Your task to perform on an android device: Open ESPN.com Image 0: 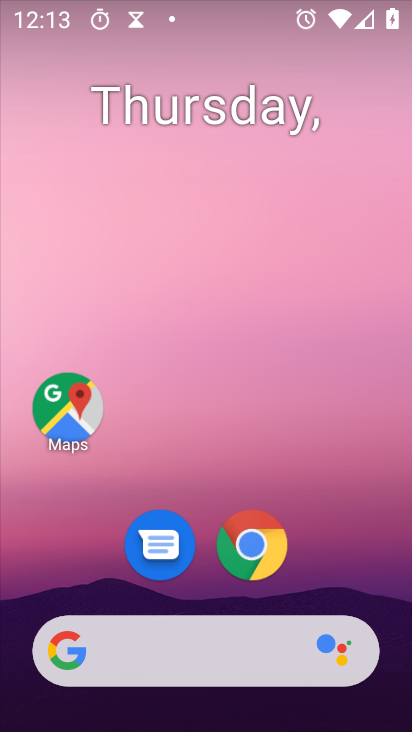
Step 0: press home button
Your task to perform on an android device: Open ESPN.com Image 1: 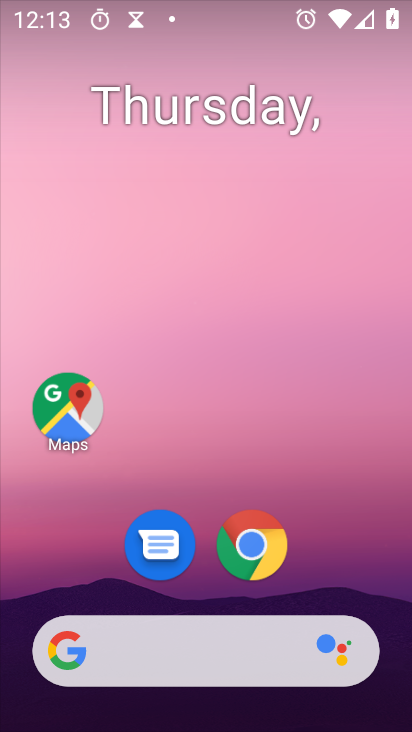
Step 1: click (247, 549)
Your task to perform on an android device: Open ESPN.com Image 2: 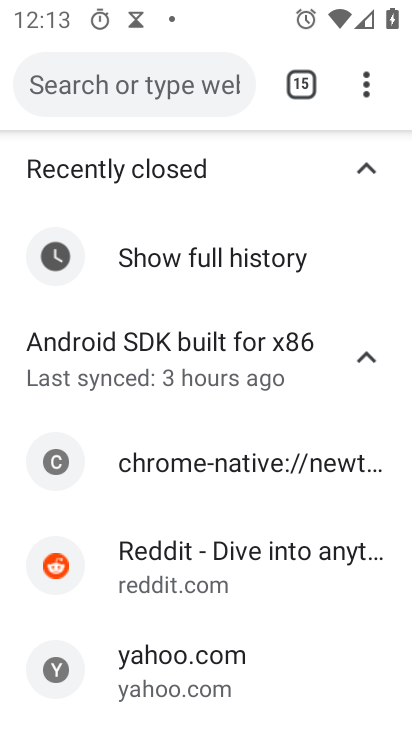
Step 2: drag from (365, 95) to (204, 164)
Your task to perform on an android device: Open ESPN.com Image 3: 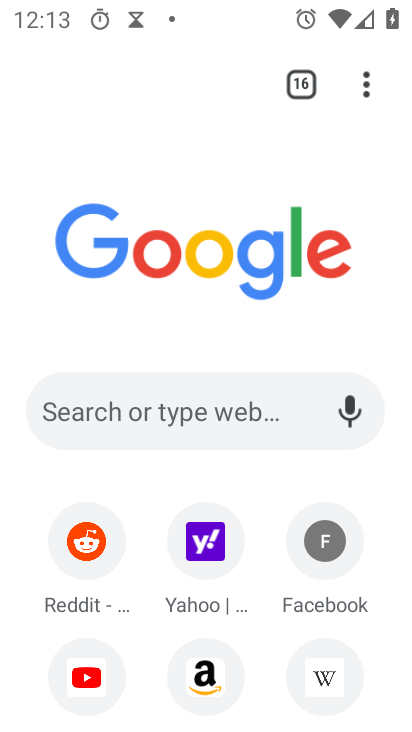
Step 3: drag from (168, 597) to (309, 239)
Your task to perform on an android device: Open ESPN.com Image 4: 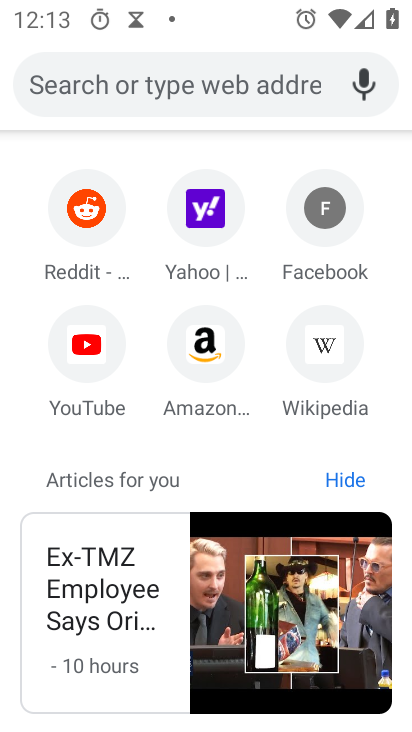
Step 4: drag from (298, 301) to (190, 671)
Your task to perform on an android device: Open ESPN.com Image 5: 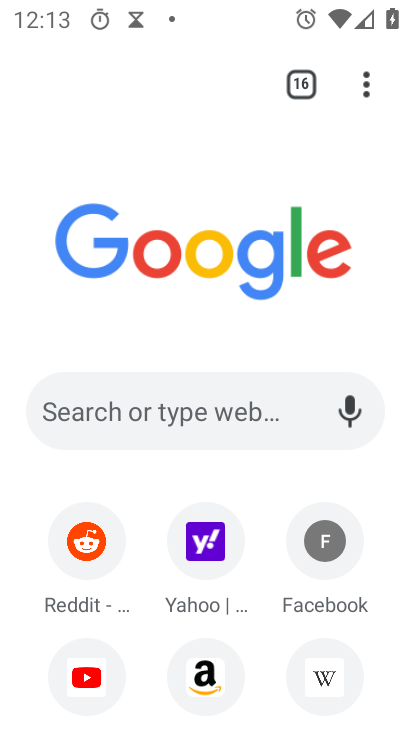
Step 5: click (169, 405)
Your task to perform on an android device: Open ESPN.com Image 6: 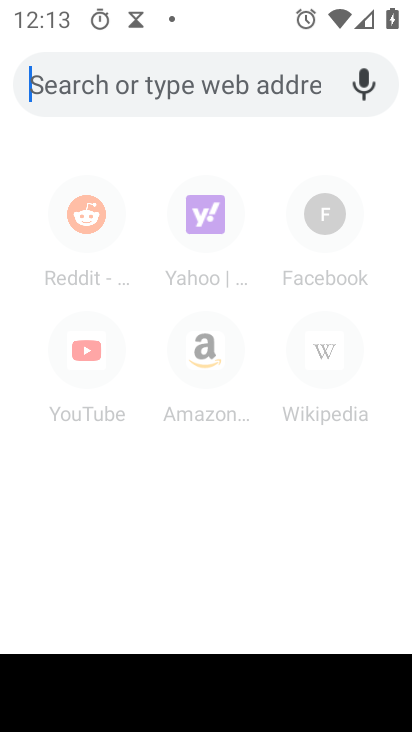
Step 6: type "espn.com"
Your task to perform on an android device: Open ESPN.com Image 7: 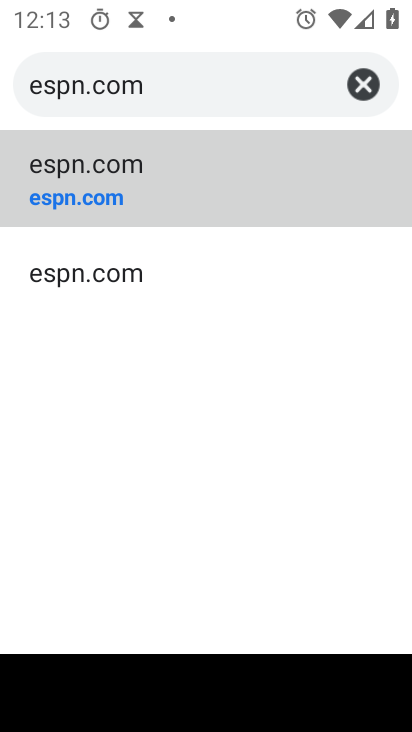
Step 7: click (125, 174)
Your task to perform on an android device: Open ESPN.com Image 8: 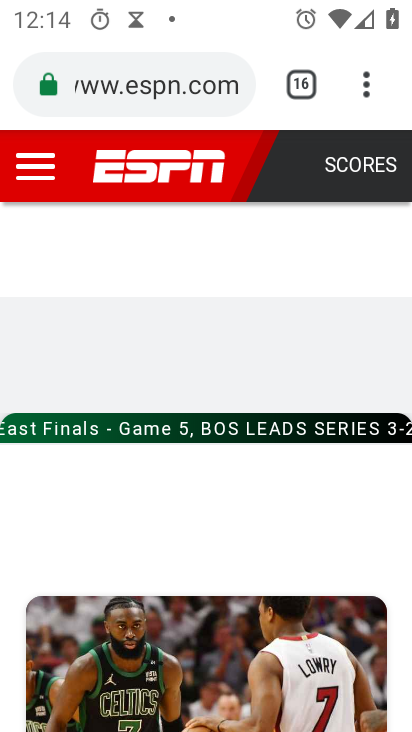
Step 8: task complete